Your task to perform on an android device: change the upload size in google photos Image 0: 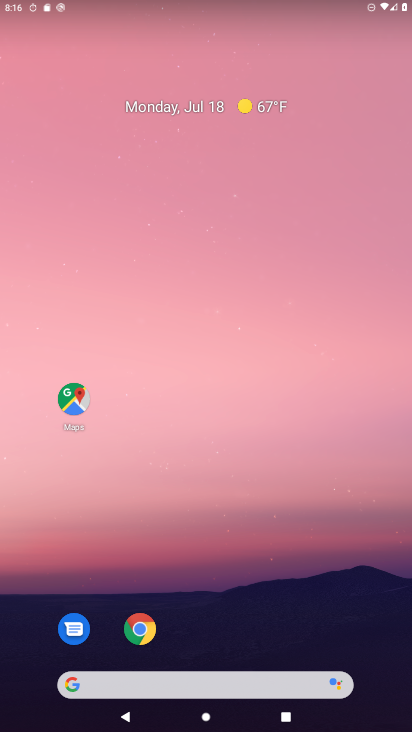
Step 0: drag from (225, 652) to (192, 80)
Your task to perform on an android device: change the upload size in google photos Image 1: 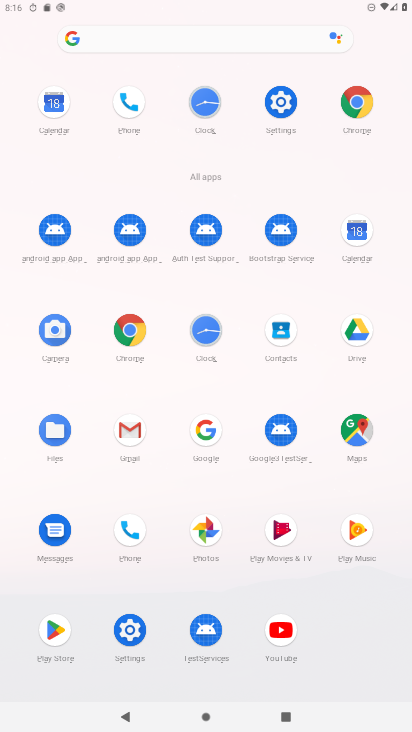
Step 1: click (200, 535)
Your task to perform on an android device: change the upload size in google photos Image 2: 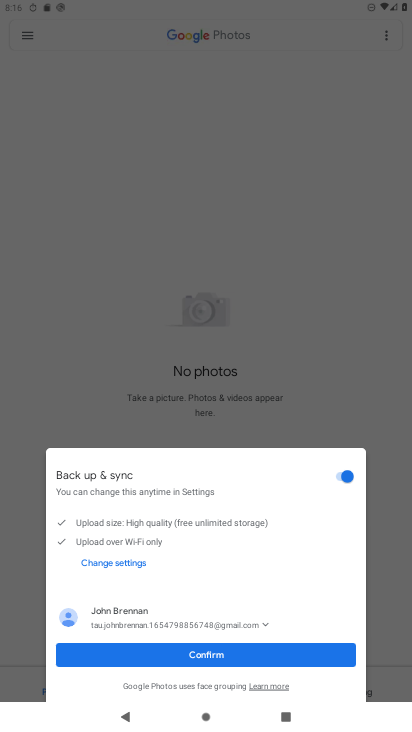
Step 2: click (93, 563)
Your task to perform on an android device: change the upload size in google photos Image 3: 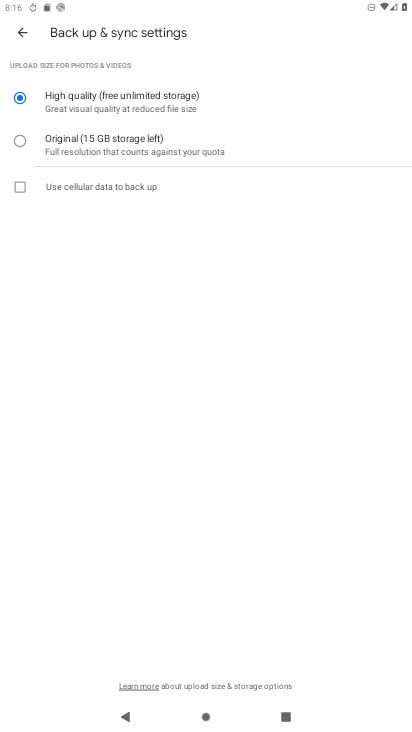
Step 3: click (50, 152)
Your task to perform on an android device: change the upload size in google photos Image 4: 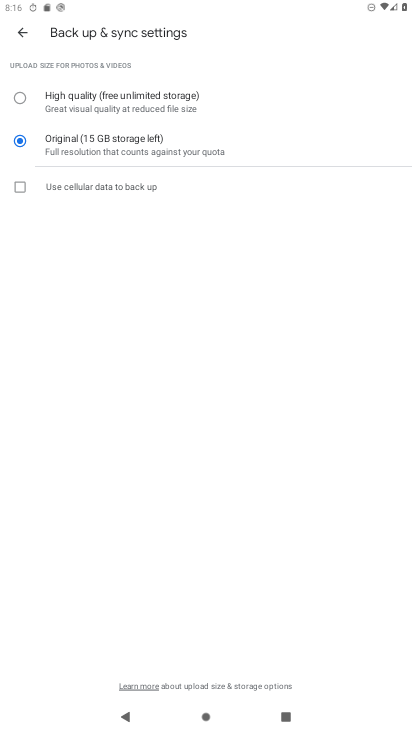
Step 4: click (19, 22)
Your task to perform on an android device: change the upload size in google photos Image 5: 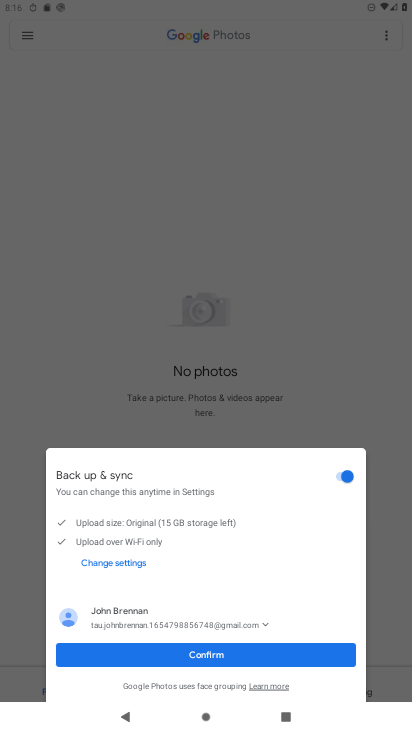
Step 5: click (229, 649)
Your task to perform on an android device: change the upload size in google photos Image 6: 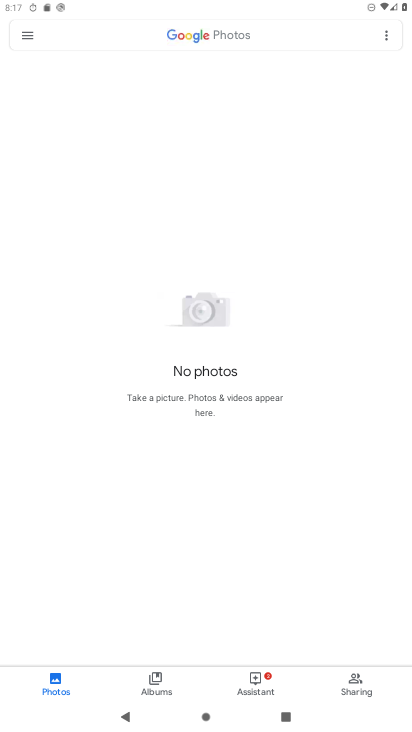
Step 6: task complete